Your task to perform on an android device: change your default location settings in chrome Image 0: 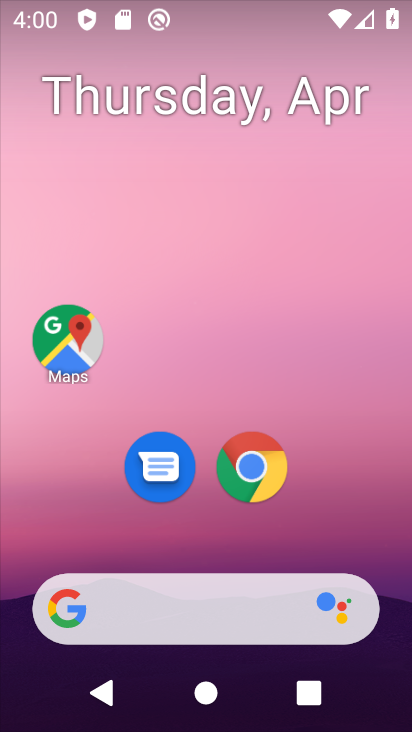
Step 0: click (276, 515)
Your task to perform on an android device: change your default location settings in chrome Image 1: 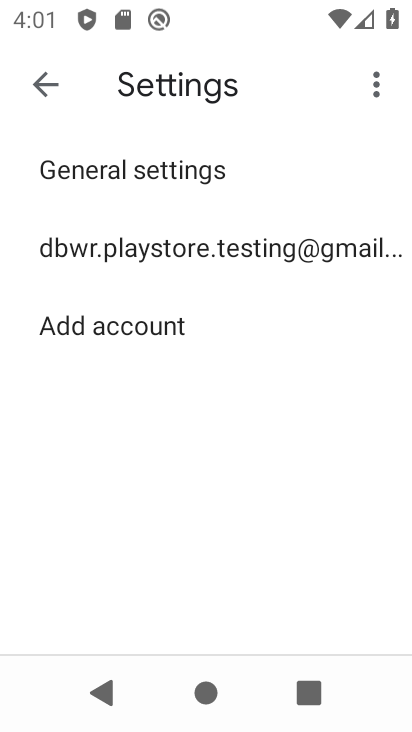
Step 1: press home button
Your task to perform on an android device: change your default location settings in chrome Image 2: 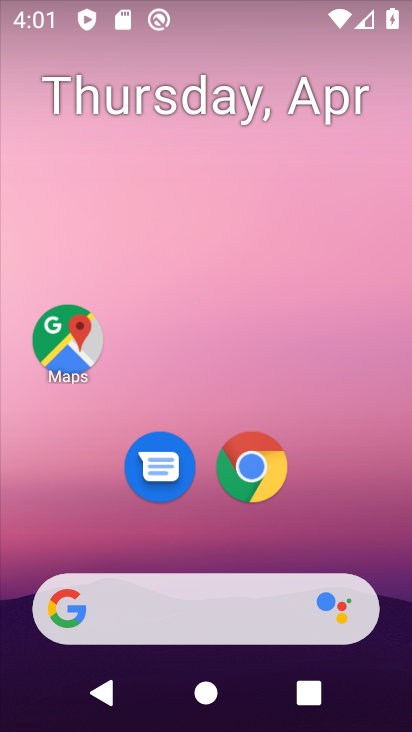
Step 2: drag from (189, 476) to (277, 1)
Your task to perform on an android device: change your default location settings in chrome Image 3: 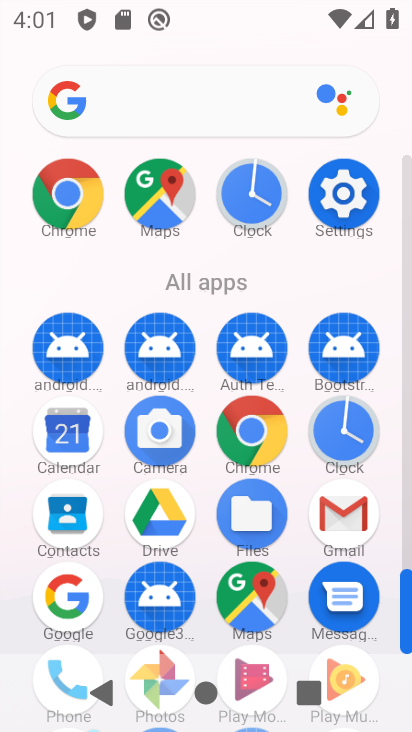
Step 3: click (238, 433)
Your task to perform on an android device: change your default location settings in chrome Image 4: 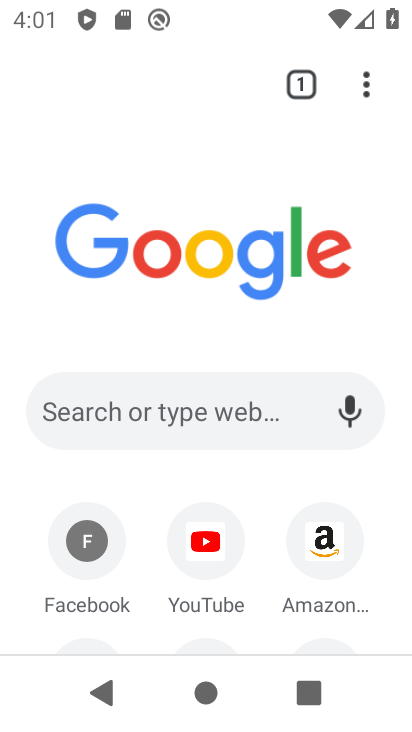
Step 4: click (378, 99)
Your task to perform on an android device: change your default location settings in chrome Image 5: 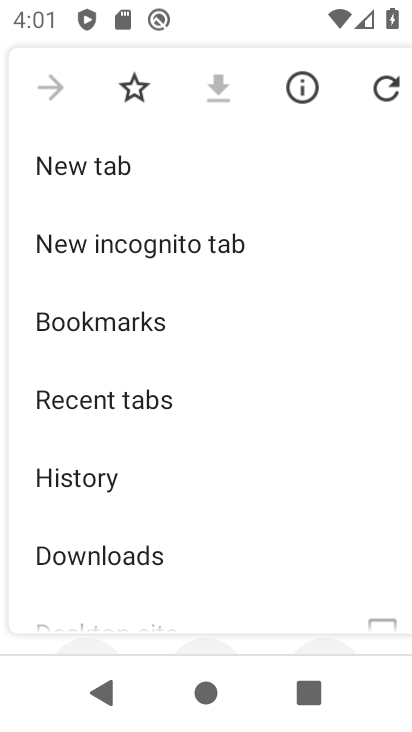
Step 5: drag from (217, 435) to (278, 32)
Your task to perform on an android device: change your default location settings in chrome Image 6: 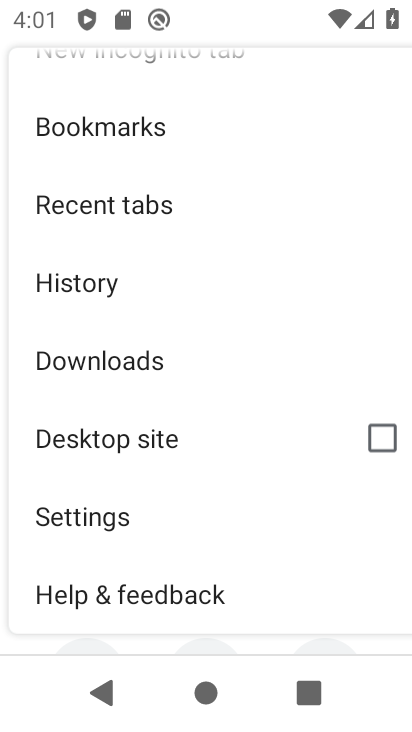
Step 6: click (109, 518)
Your task to perform on an android device: change your default location settings in chrome Image 7: 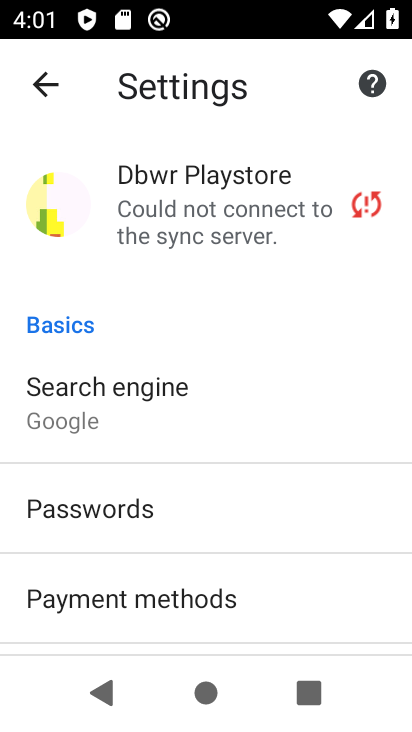
Step 7: drag from (129, 536) to (223, 162)
Your task to perform on an android device: change your default location settings in chrome Image 8: 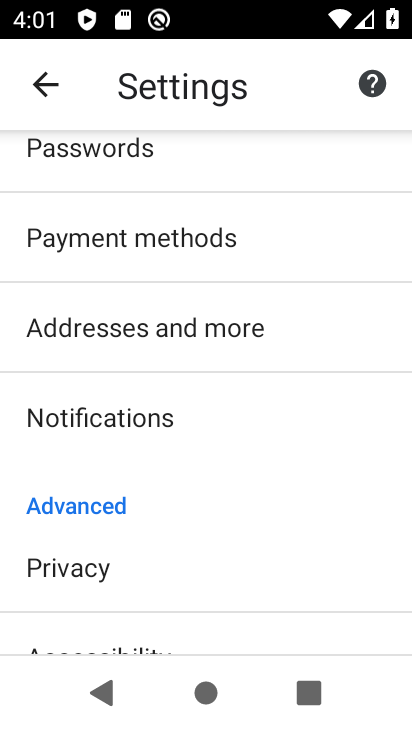
Step 8: drag from (199, 448) to (301, 71)
Your task to perform on an android device: change your default location settings in chrome Image 9: 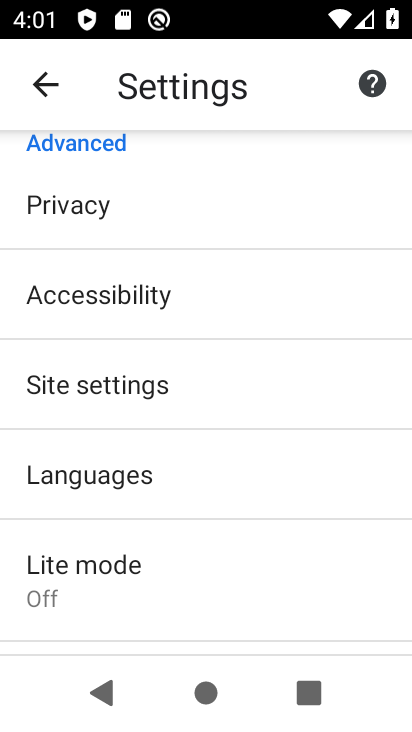
Step 9: click (125, 385)
Your task to perform on an android device: change your default location settings in chrome Image 10: 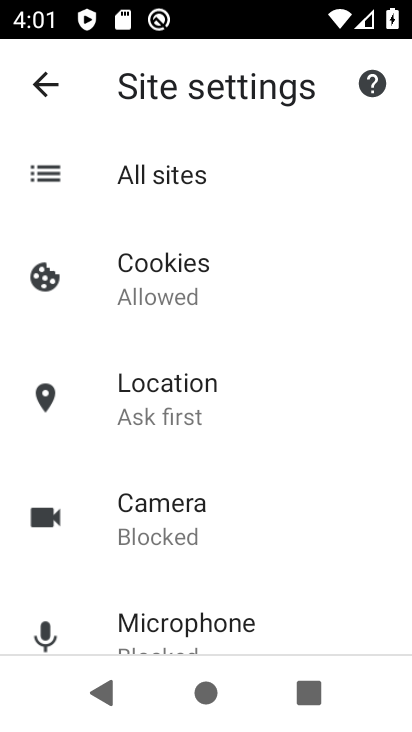
Step 10: click (172, 418)
Your task to perform on an android device: change your default location settings in chrome Image 11: 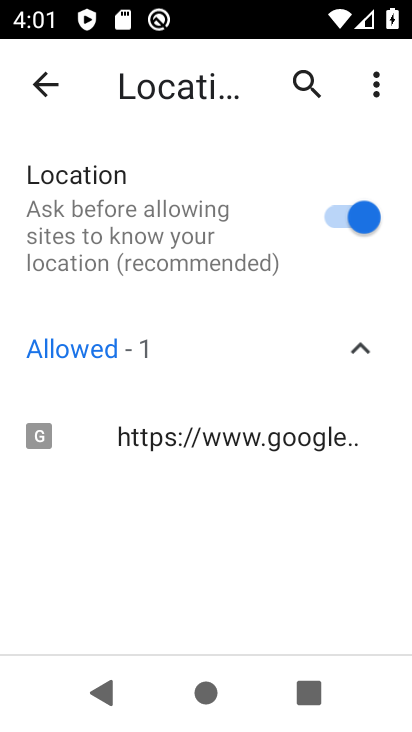
Step 11: click (313, 214)
Your task to perform on an android device: change your default location settings in chrome Image 12: 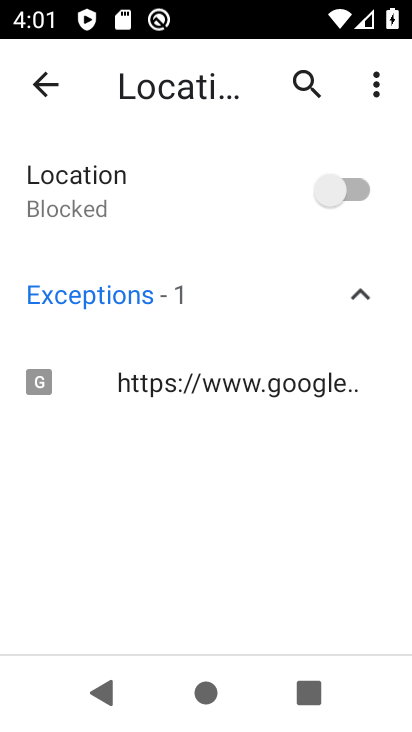
Step 12: task complete